Your task to perform on an android device: Turn on notifications for the Google Maps app Image 0: 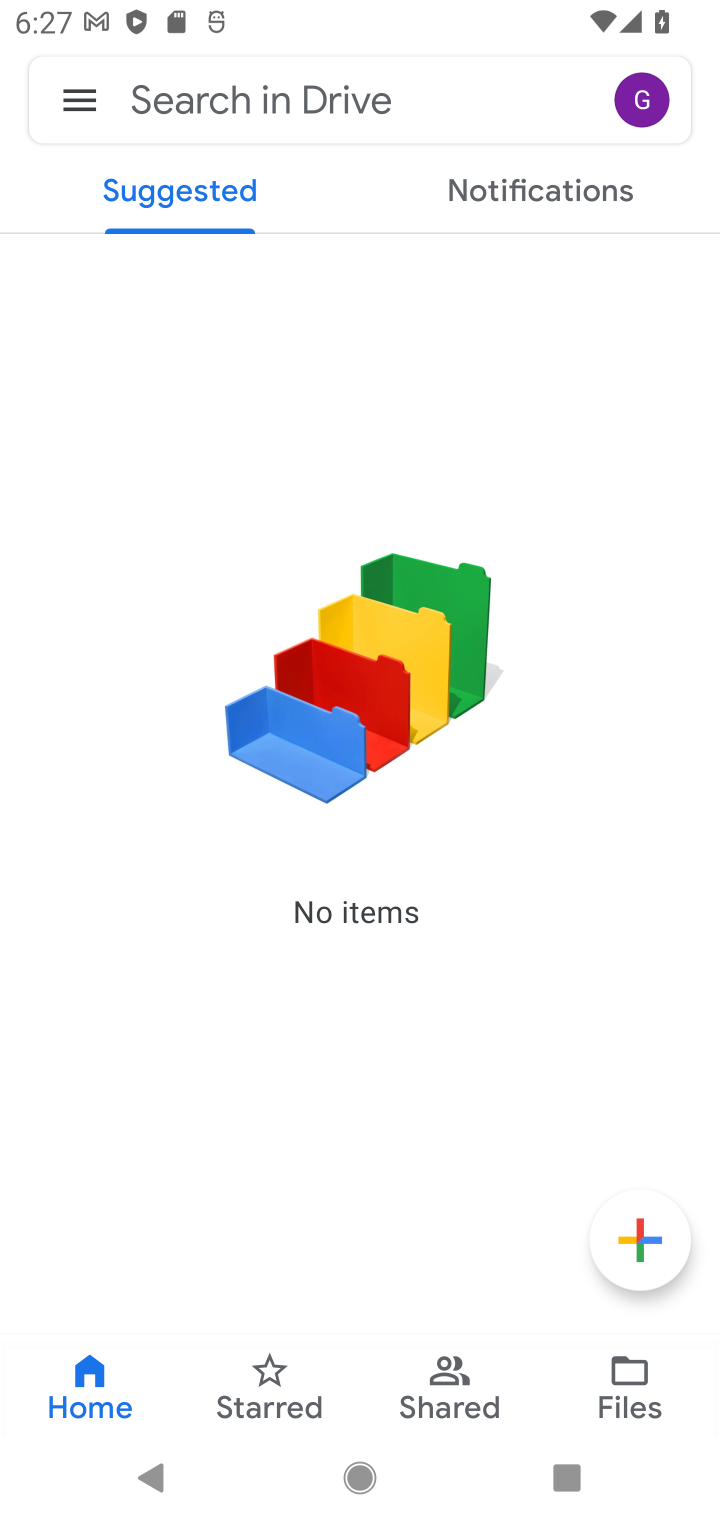
Step 0: press home button
Your task to perform on an android device: Turn on notifications for the Google Maps app Image 1: 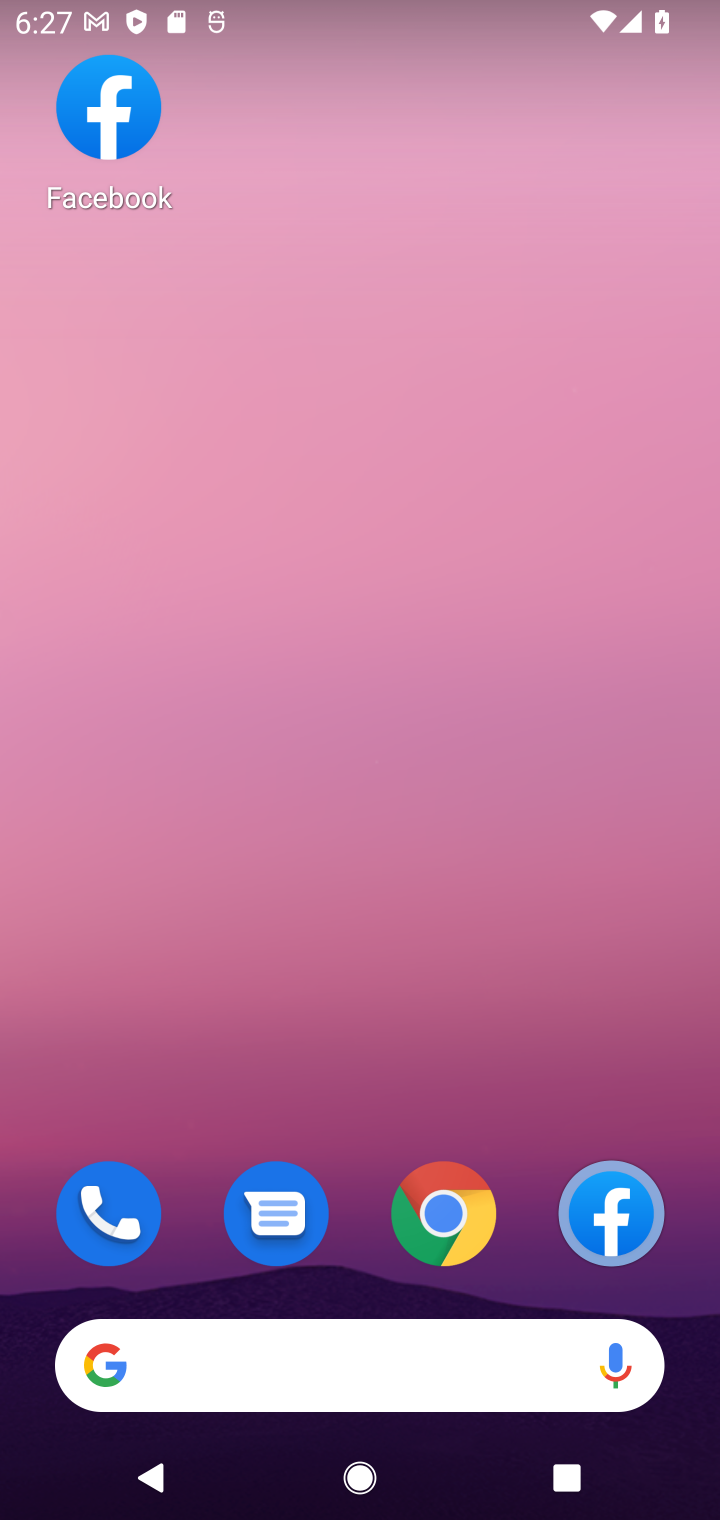
Step 1: drag from (360, 1281) to (341, 569)
Your task to perform on an android device: Turn on notifications for the Google Maps app Image 2: 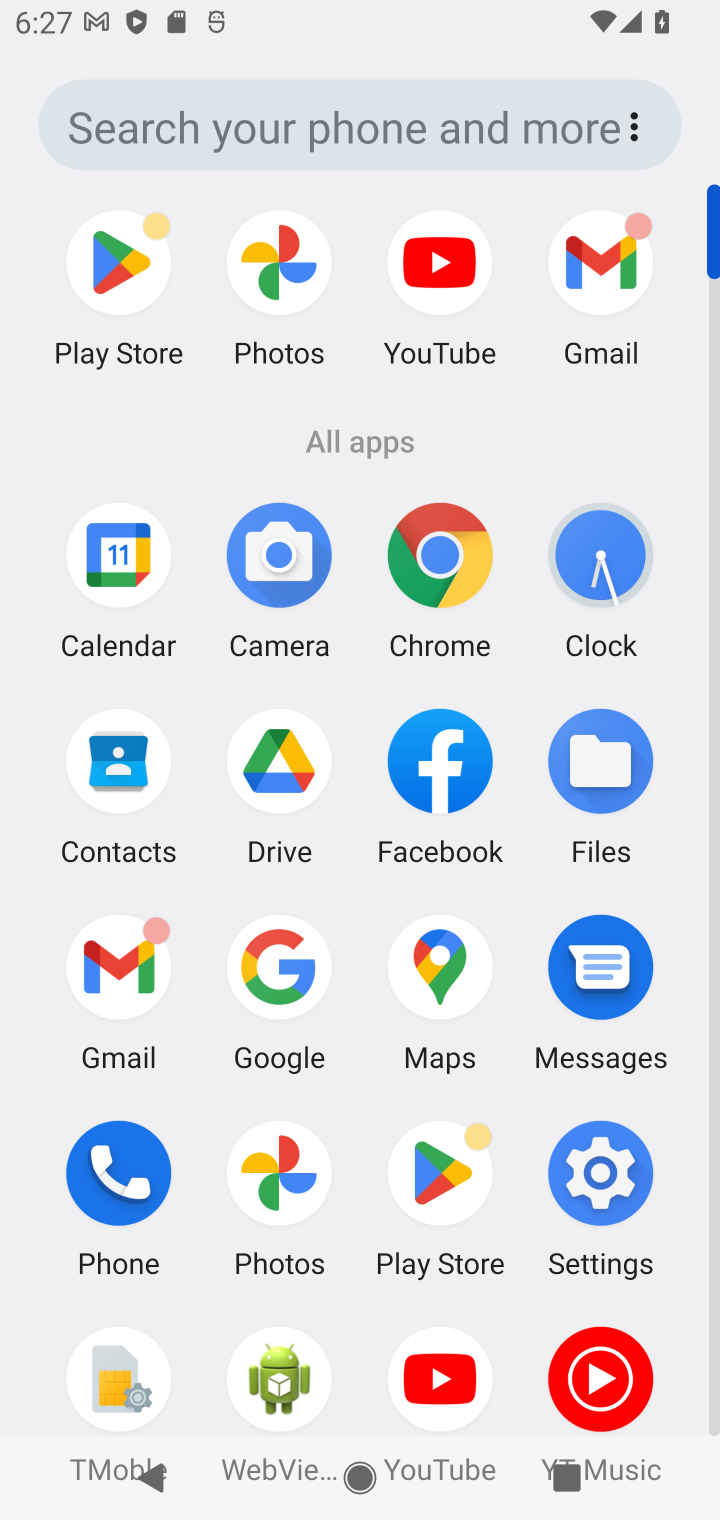
Step 2: click (451, 965)
Your task to perform on an android device: Turn on notifications for the Google Maps app Image 3: 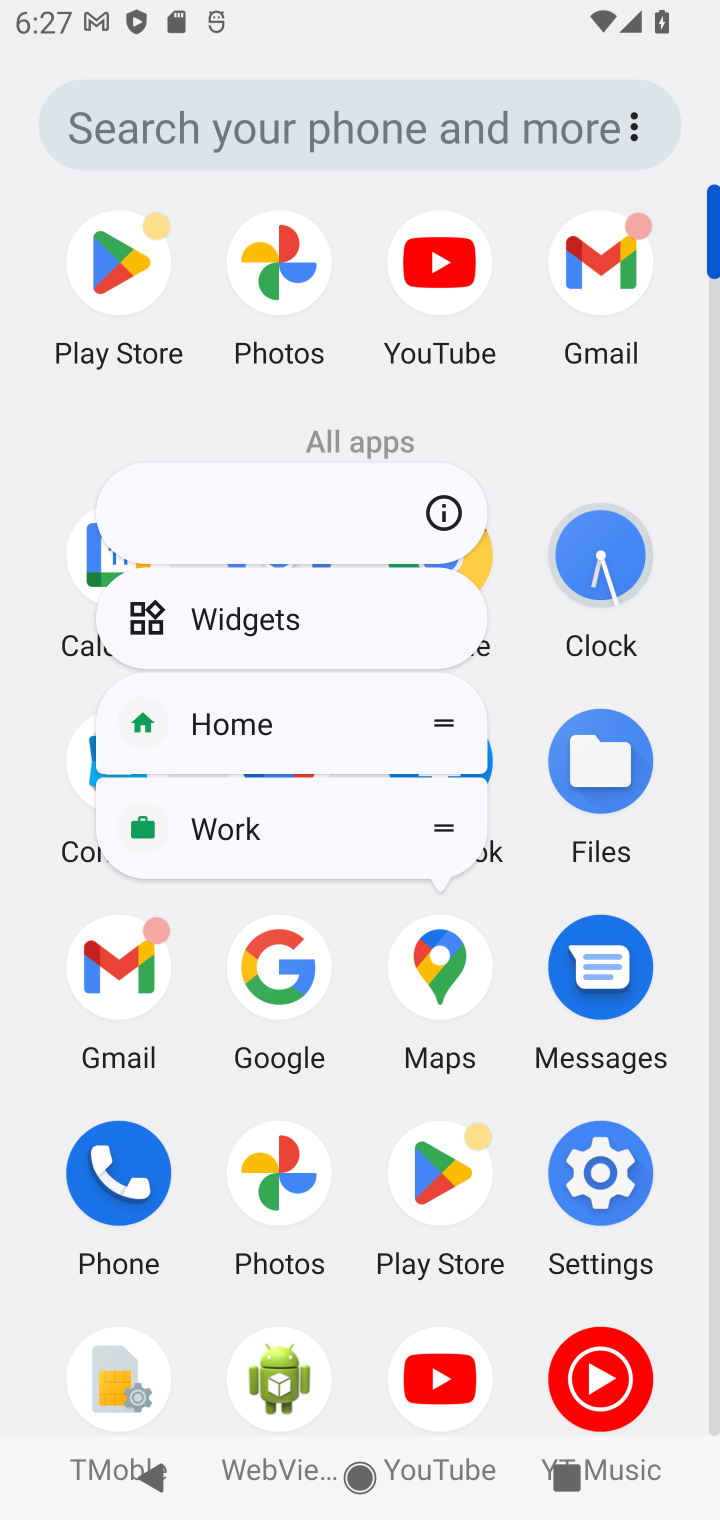
Step 3: click (441, 971)
Your task to perform on an android device: Turn on notifications for the Google Maps app Image 4: 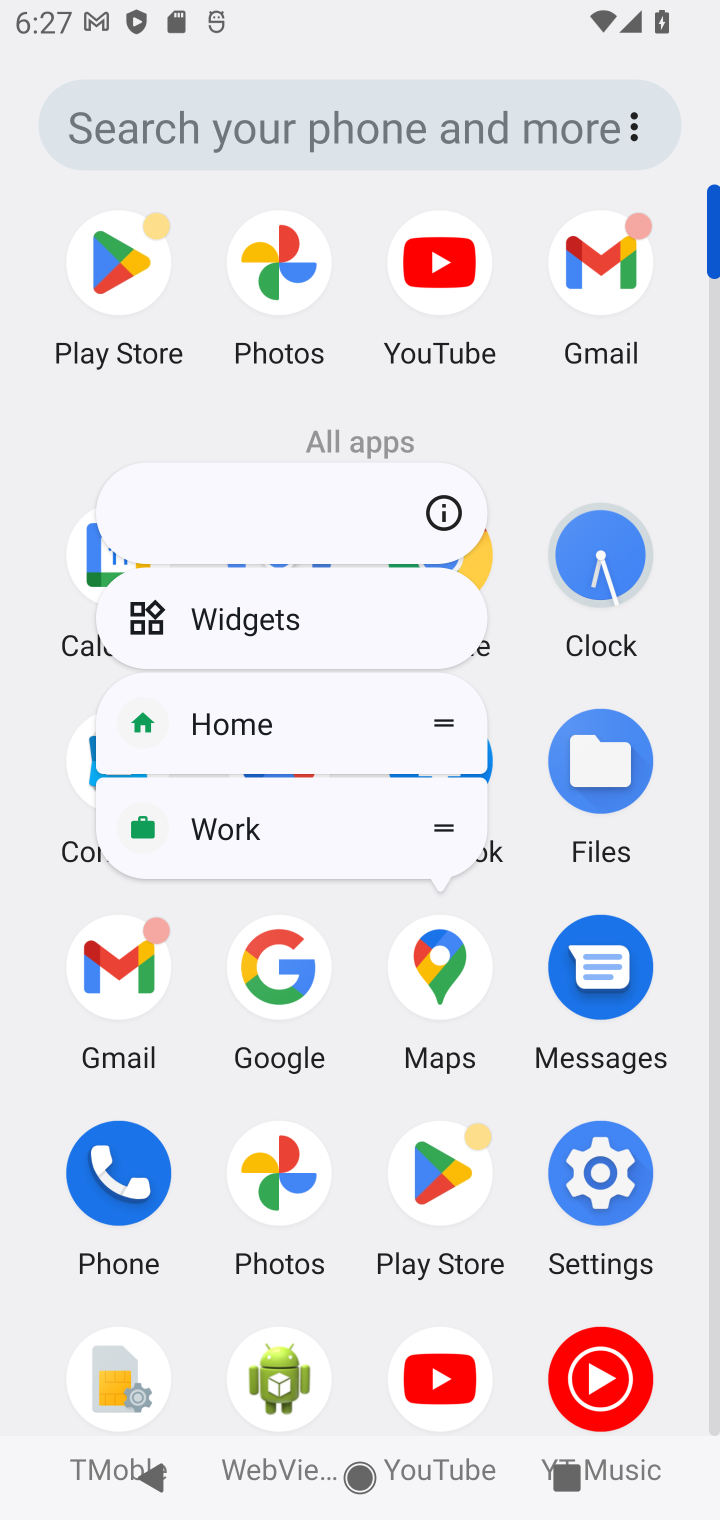
Step 4: click (423, 949)
Your task to perform on an android device: Turn on notifications for the Google Maps app Image 5: 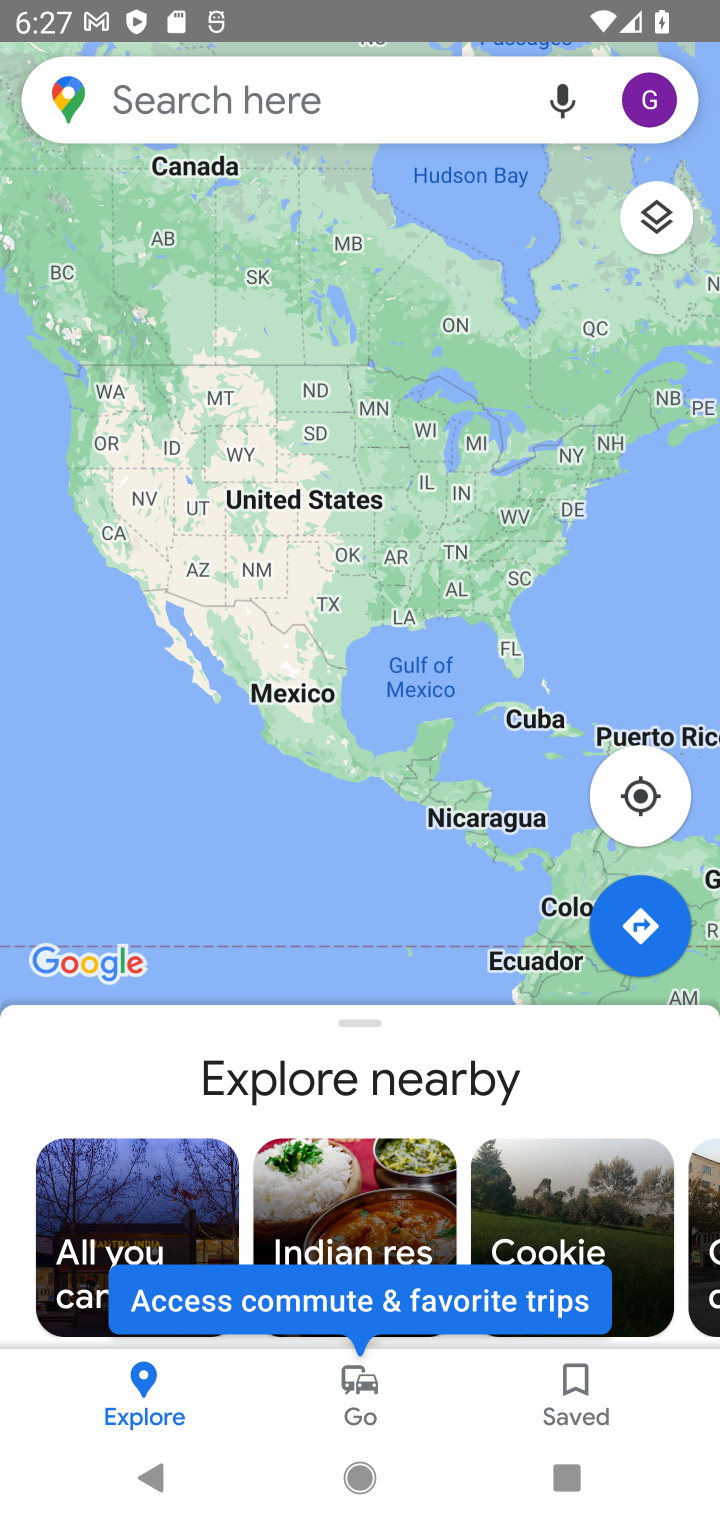
Step 5: click (632, 102)
Your task to perform on an android device: Turn on notifications for the Google Maps app Image 6: 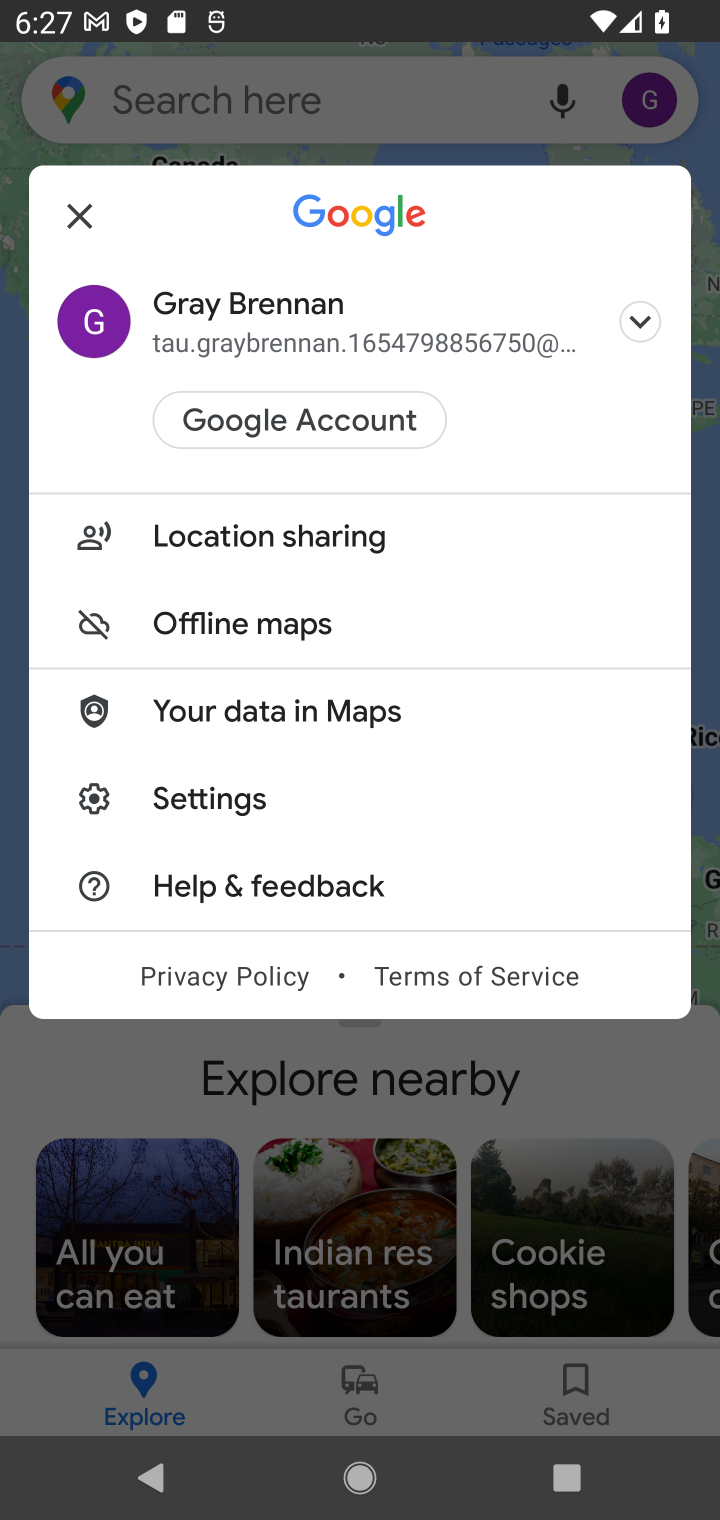
Step 6: click (225, 788)
Your task to perform on an android device: Turn on notifications for the Google Maps app Image 7: 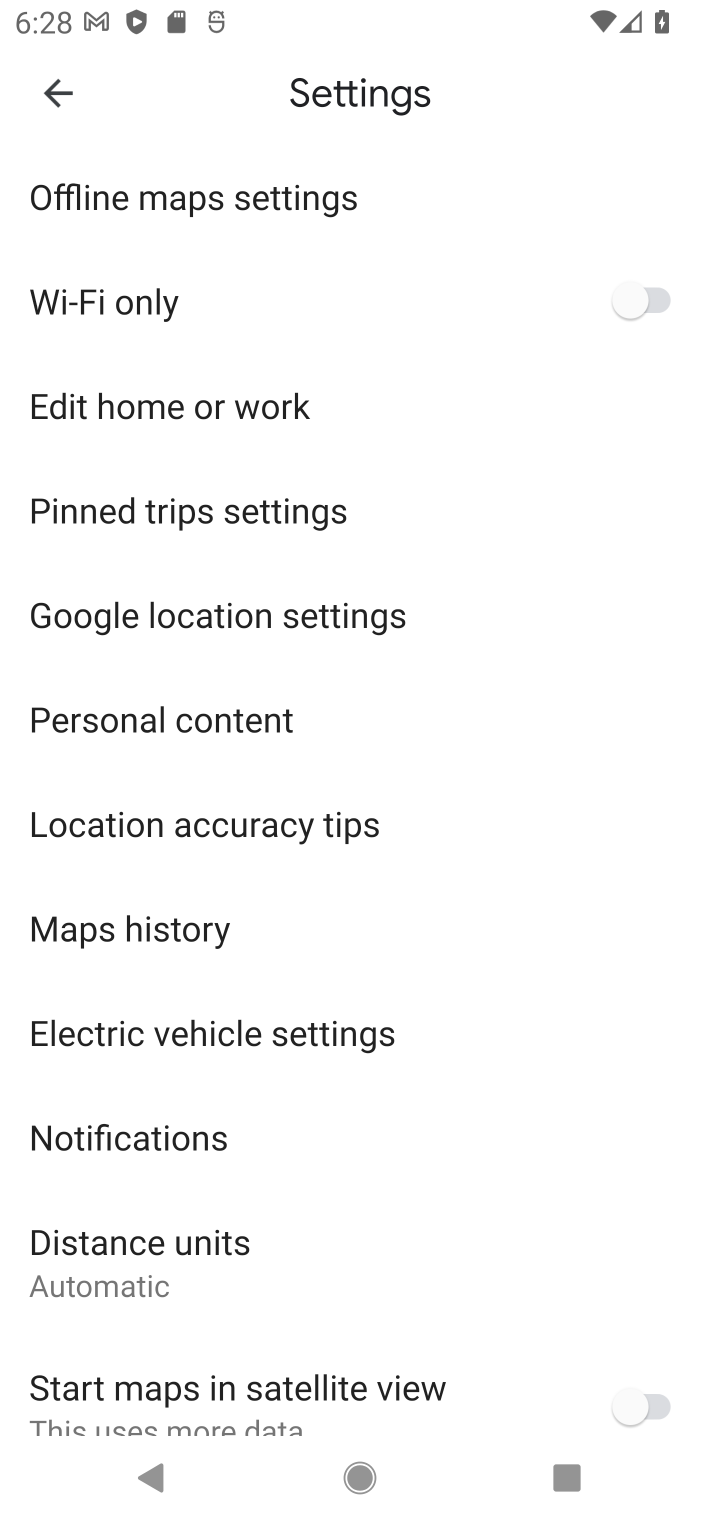
Step 7: click (240, 1135)
Your task to perform on an android device: Turn on notifications for the Google Maps app Image 8: 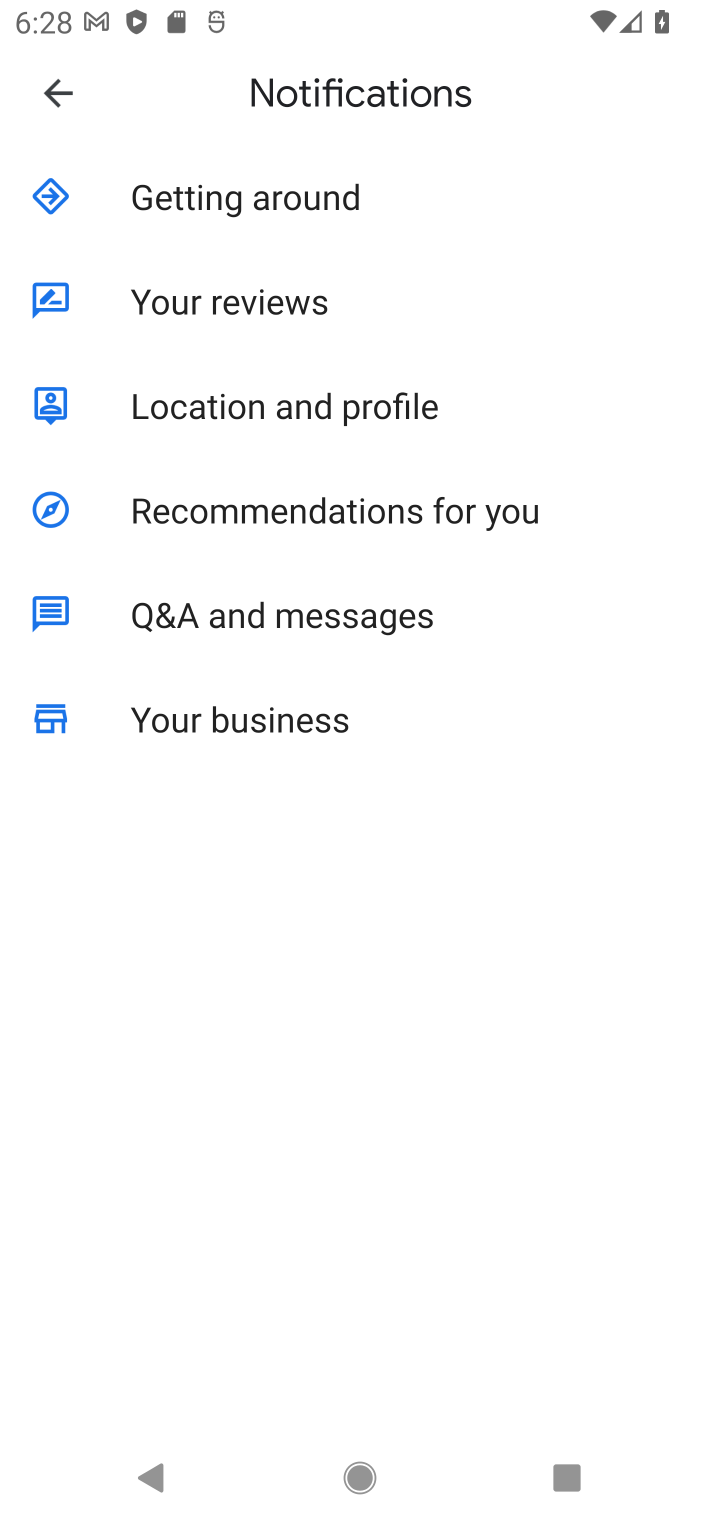
Step 8: click (49, 74)
Your task to perform on an android device: Turn on notifications for the Google Maps app Image 9: 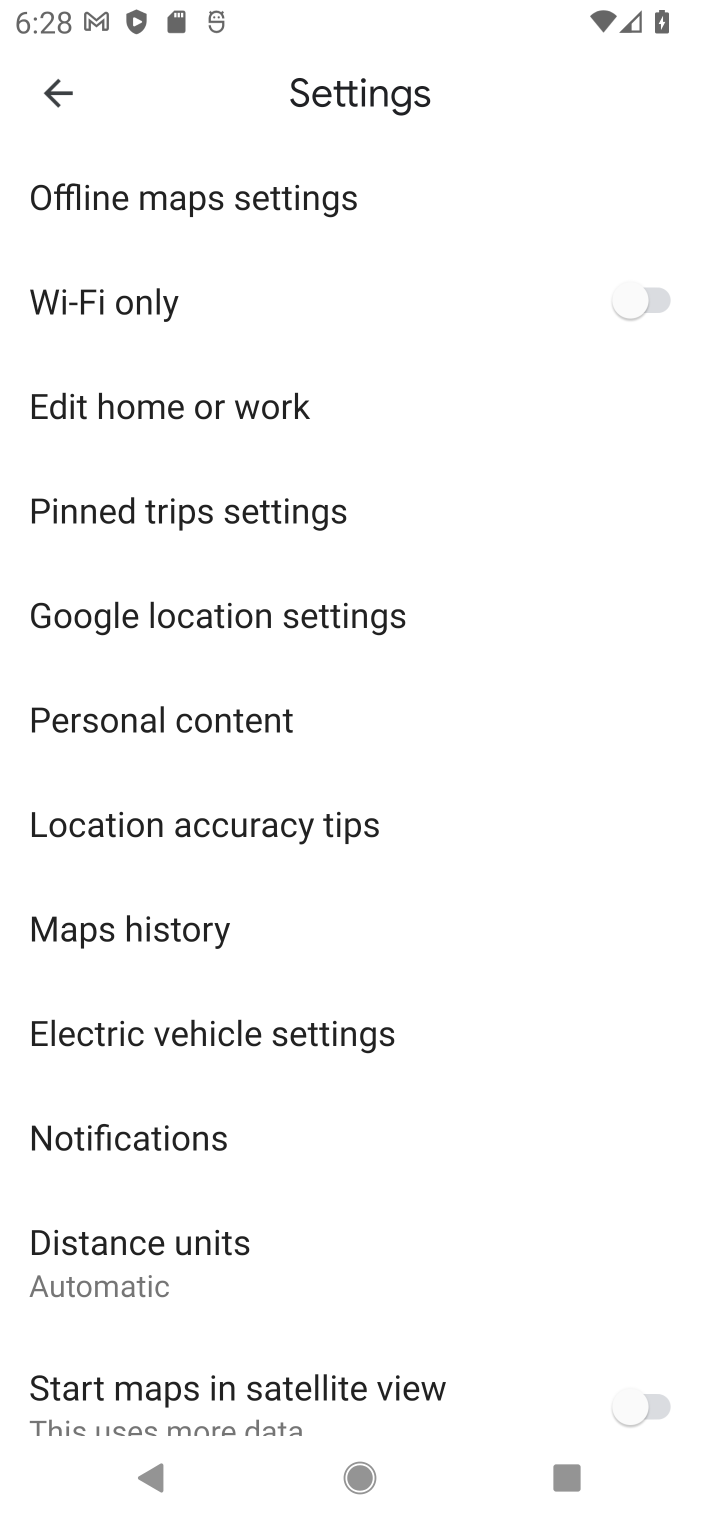
Step 9: drag from (114, 1280) to (354, 272)
Your task to perform on an android device: Turn on notifications for the Google Maps app Image 10: 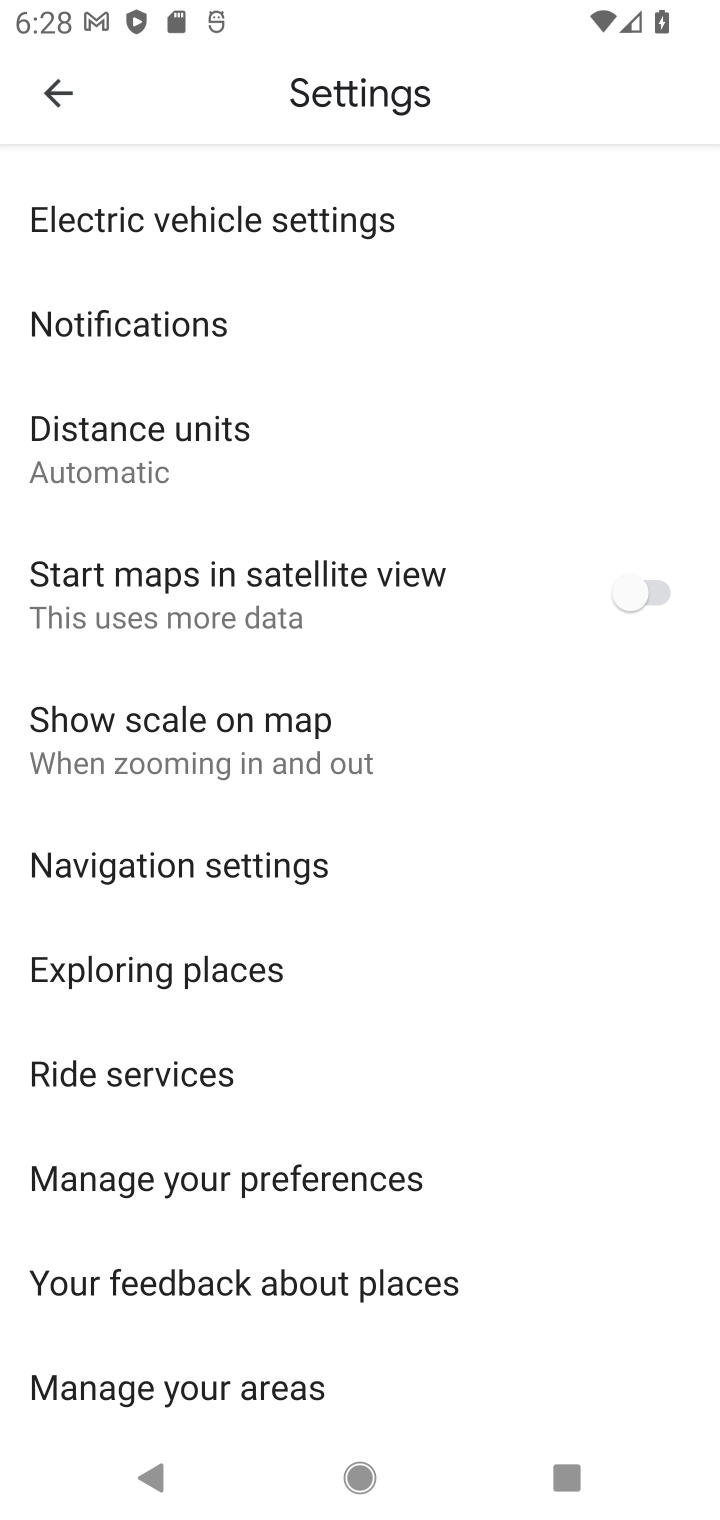
Step 10: click (215, 870)
Your task to perform on an android device: Turn on notifications for the Google Maps app Image 11: 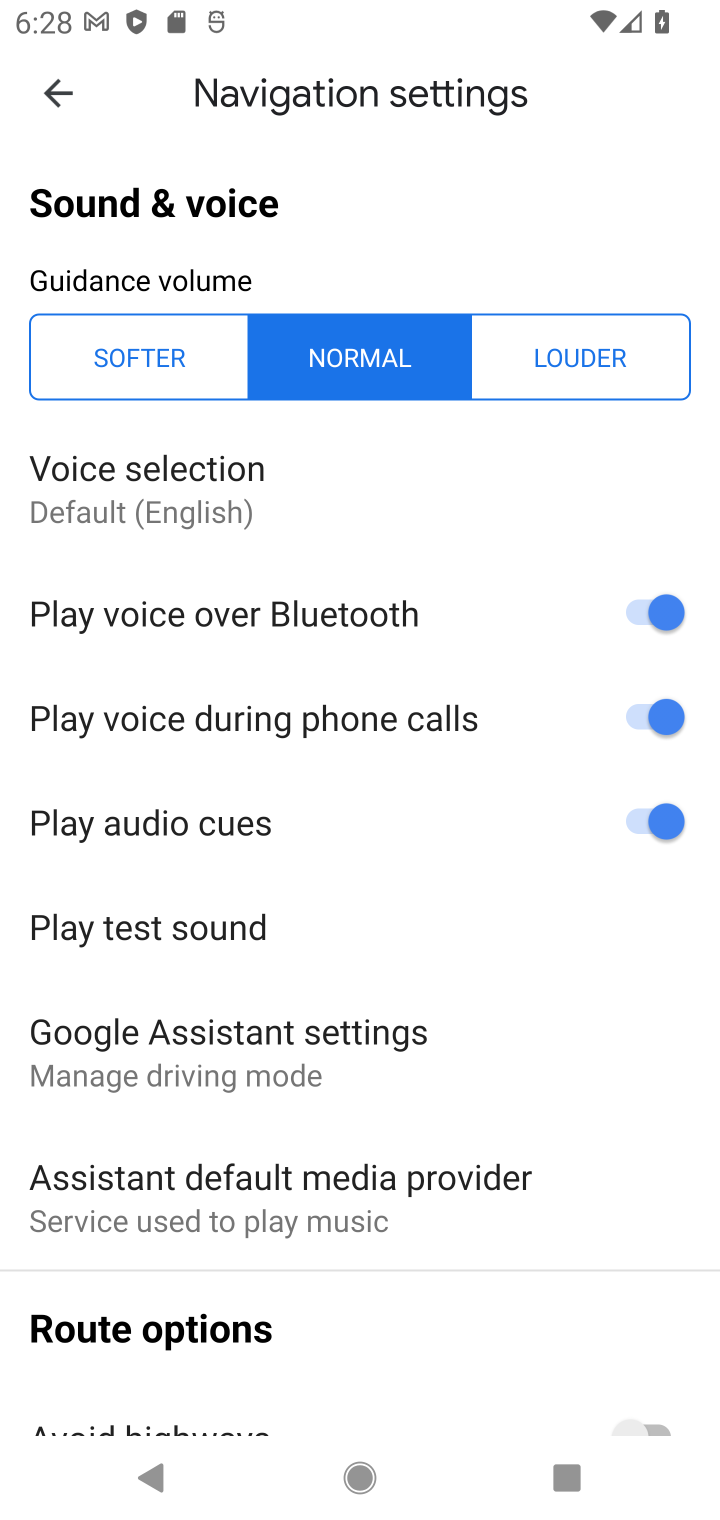
Step 11: click (58, 103)
Your task to perform on an android device: Turn on notifications for the Google Maps app Image 12: 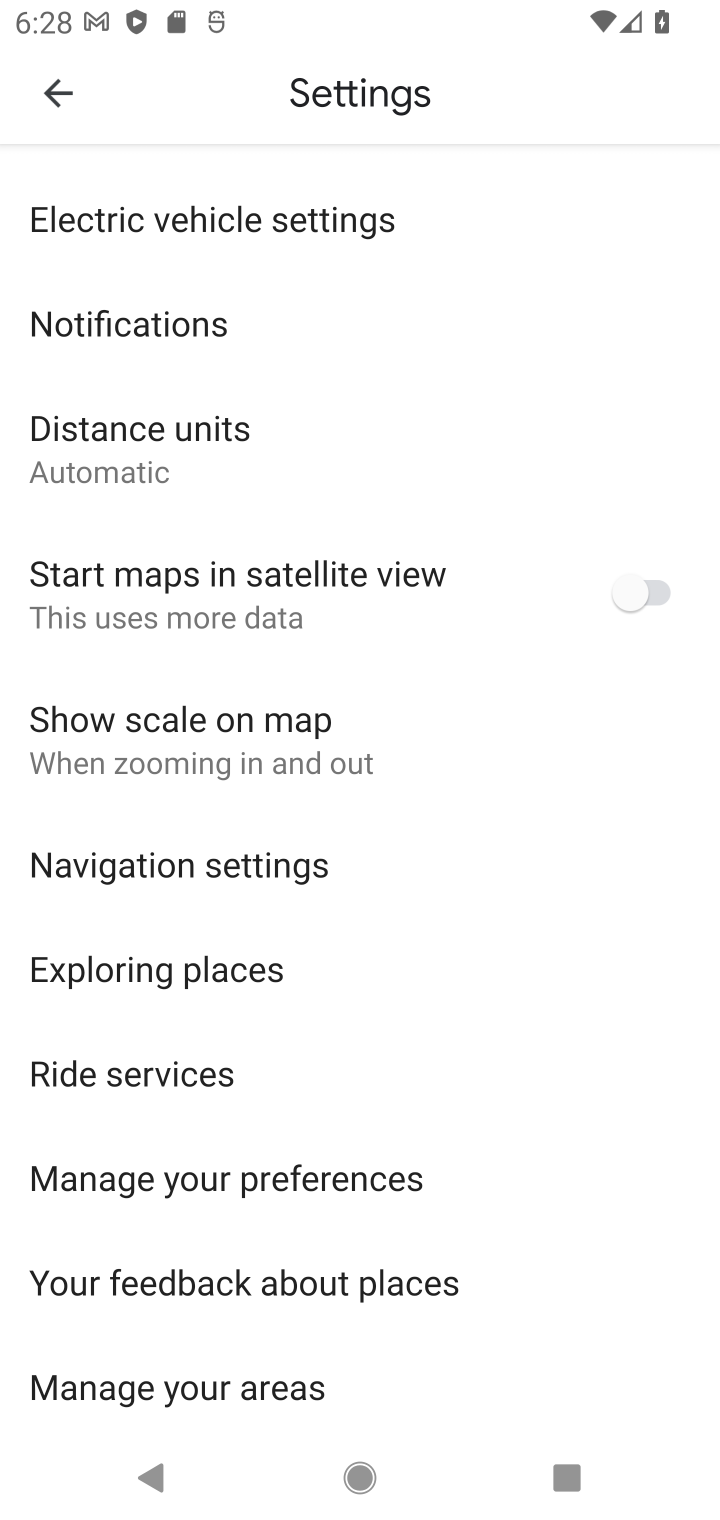
Step 12: drag from (291, 1208) to (315, 419)
Your task to perform on an android device: Turn on notifications for the Google Maps app Image 13: 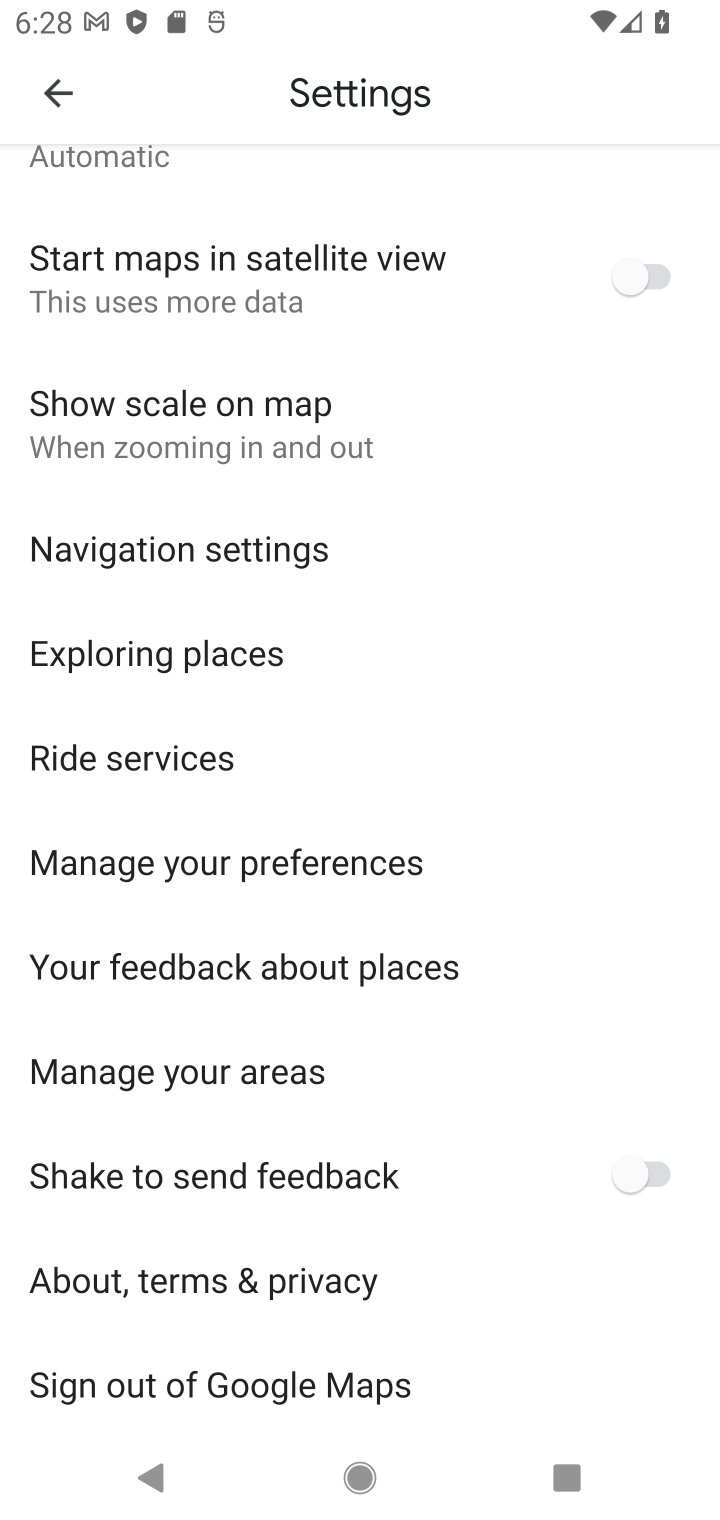
Step 13: click (37, 80)
Your task to perform on an android device: Turn on notifications for the Google Maps app Image 14: 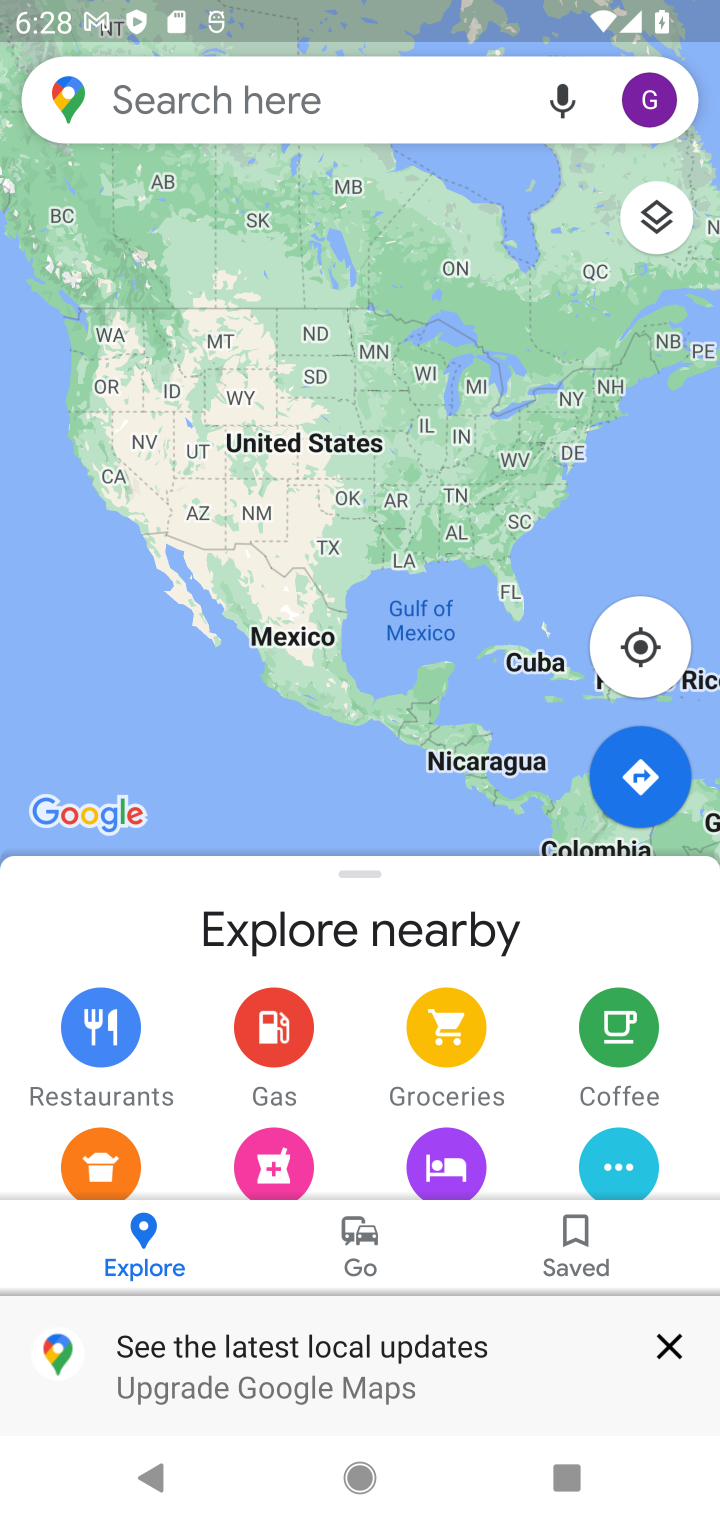
Step 14: click (647, 93)
Your task to perform on an android device: Turn on notifications for the Google Maps app Image 15: 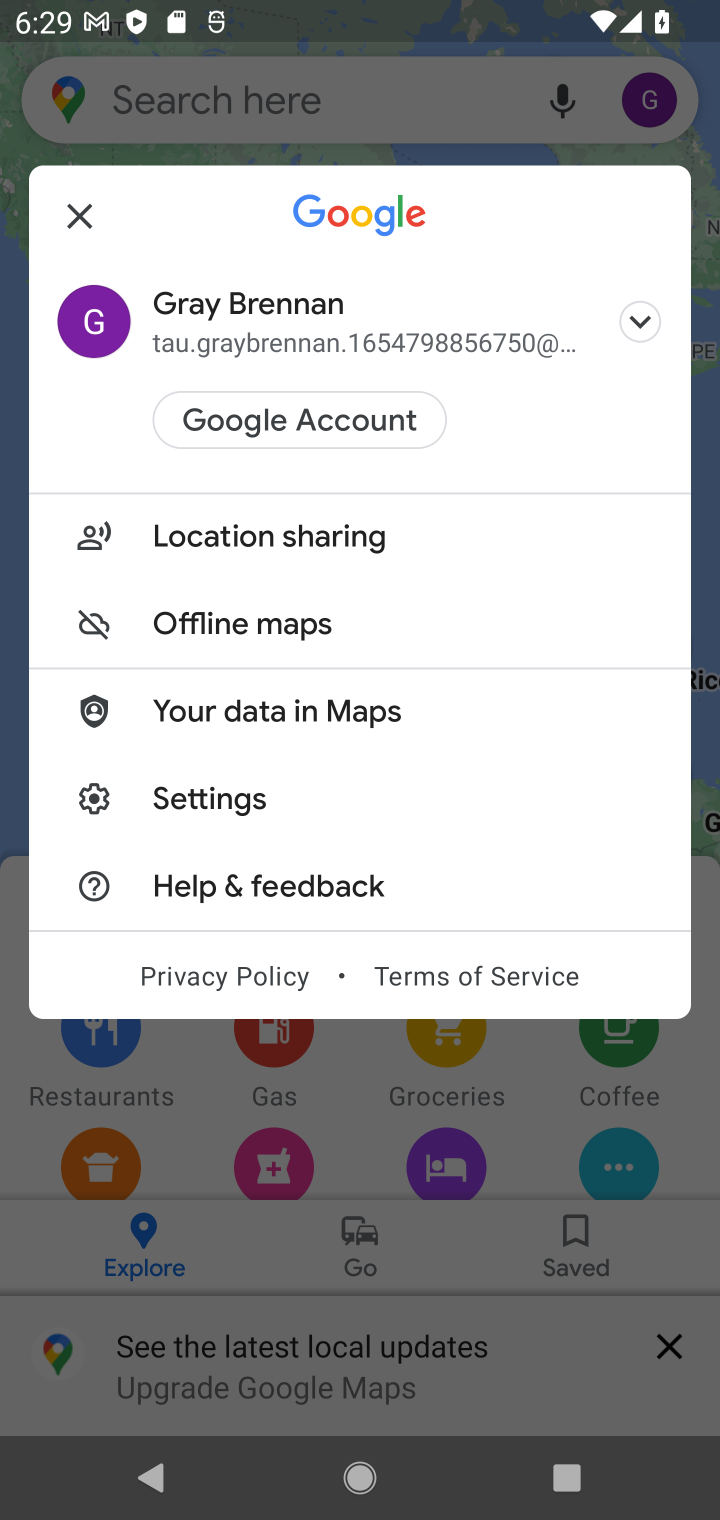
Step 15: click (294, 784)
Your task to perform on an android device: Turn on notifications for the Google Maps app Image 16: 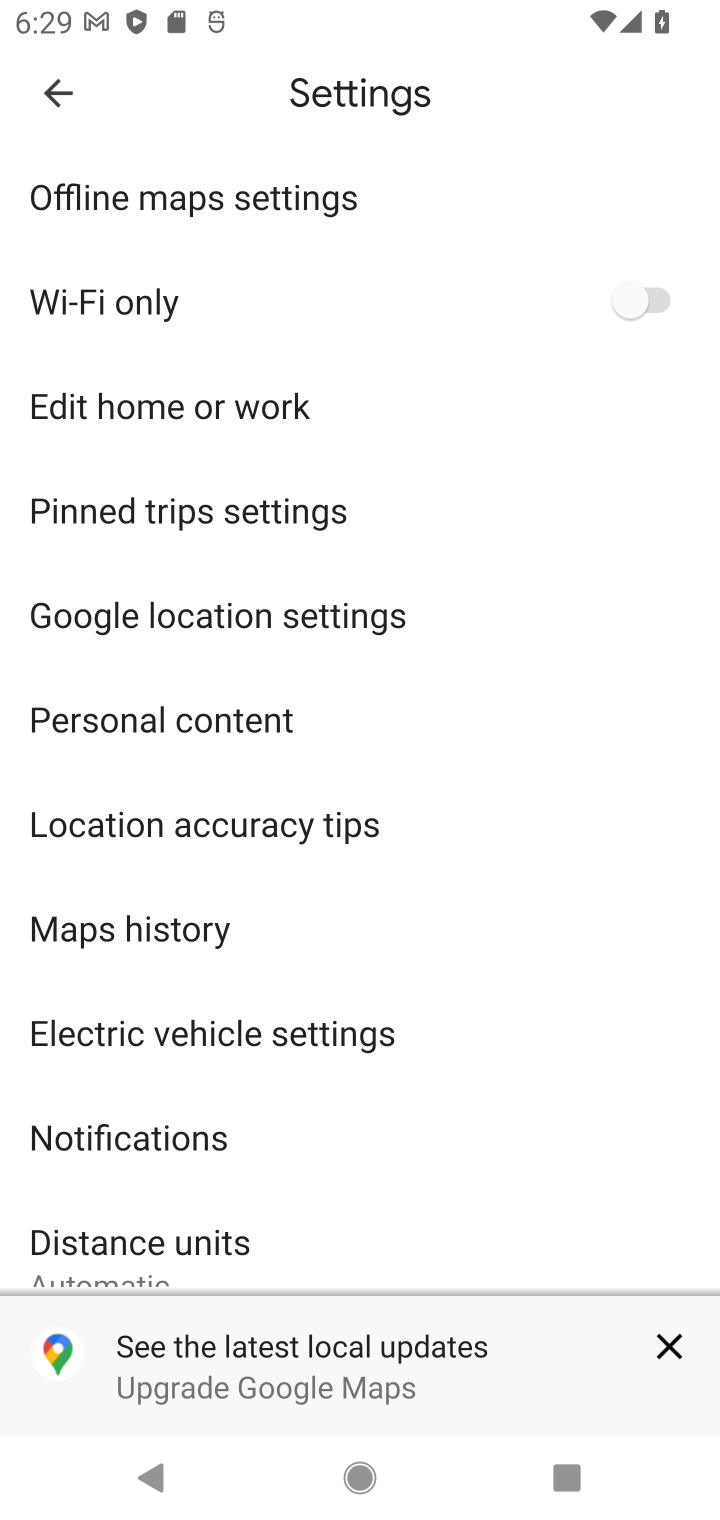
Step 16: drag from (292, 1155) to (383, 394)
Your task to perform on an android device: Turn on notifications for the Google Maps app Image 17: 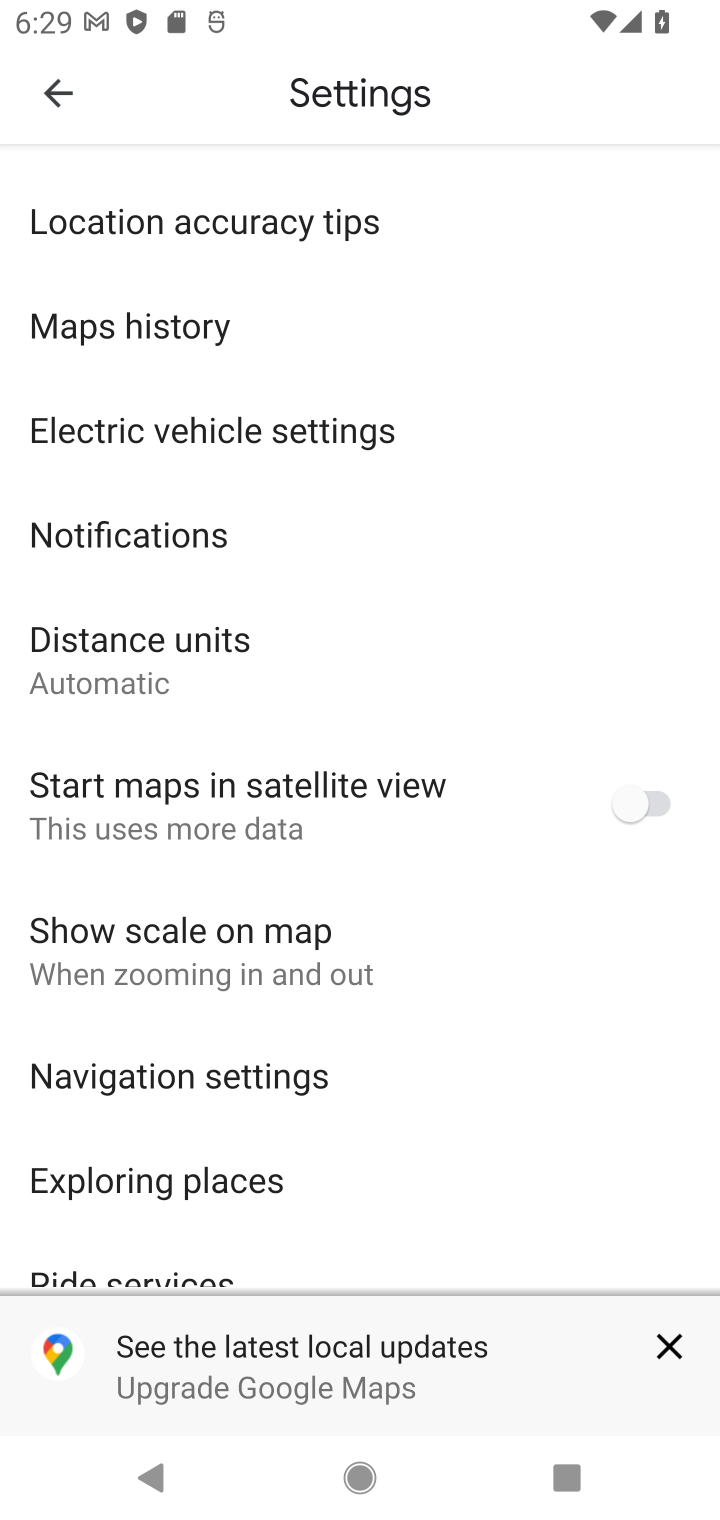
Step 17: click (213, 516)
Your task to perform on an android device: Turn on notifications for the Google Maps app Image 18: 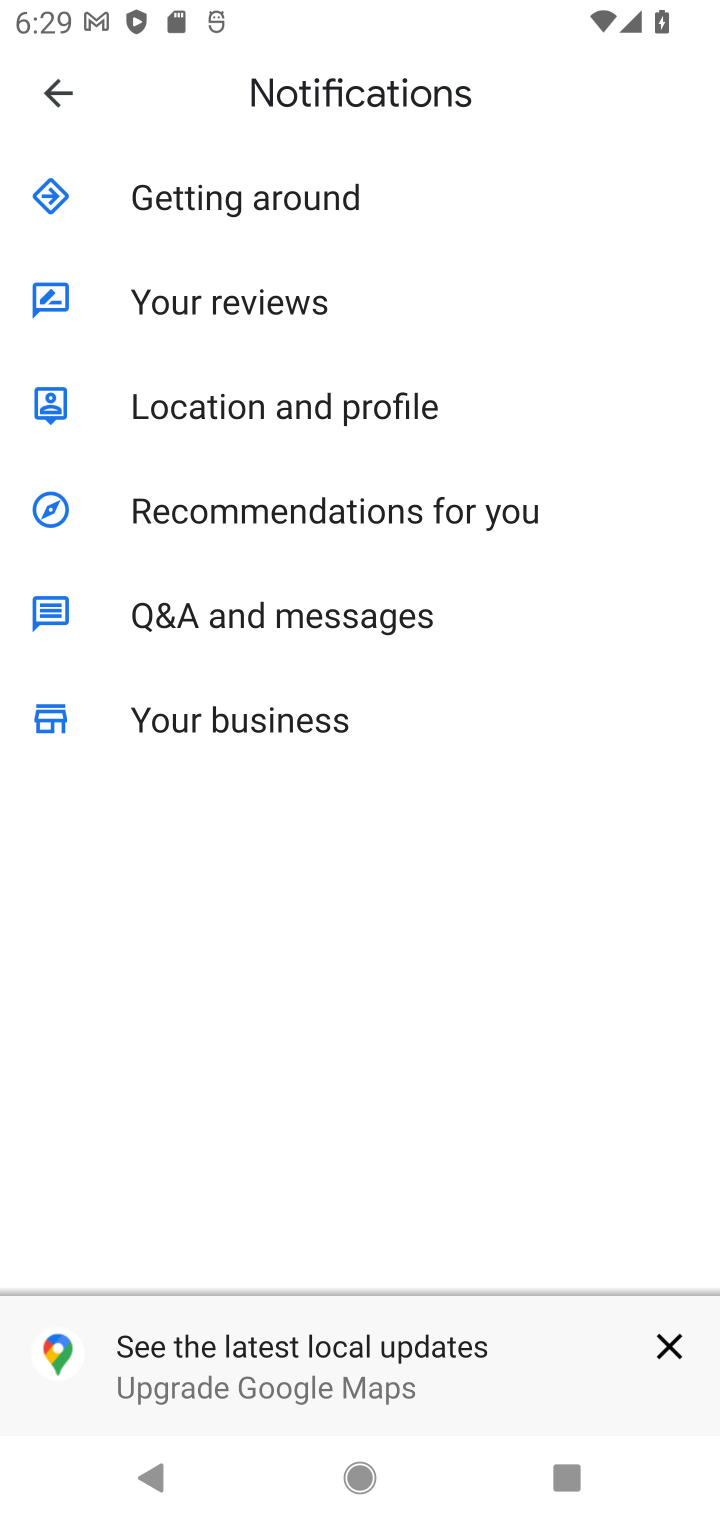
Step 18: click (68, 68)
Your task to perform on an android device: Turn on notifications for the Google Maps app Image 19: 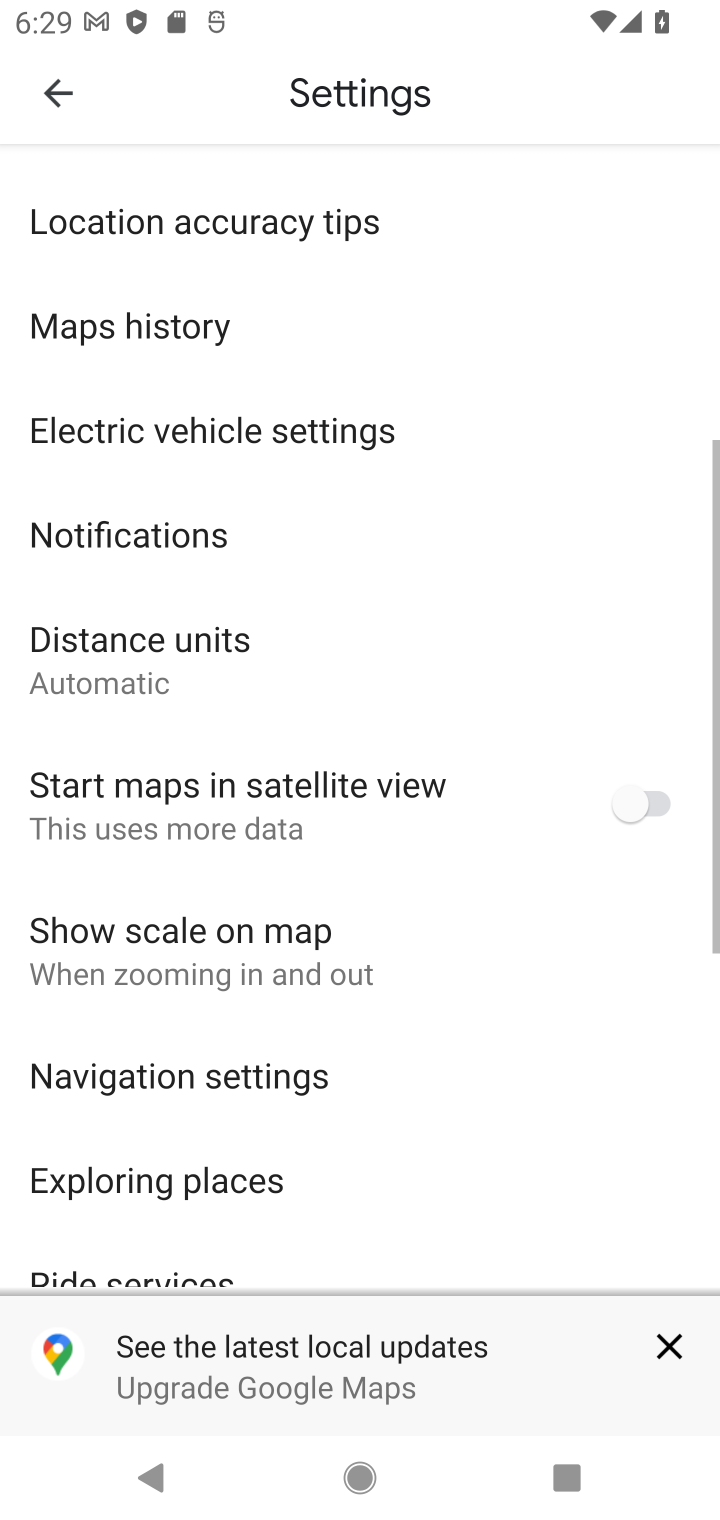
Step 19: task complete